Your task to perform on an android device: open chrome and create a bookmark for the current page Image 0: 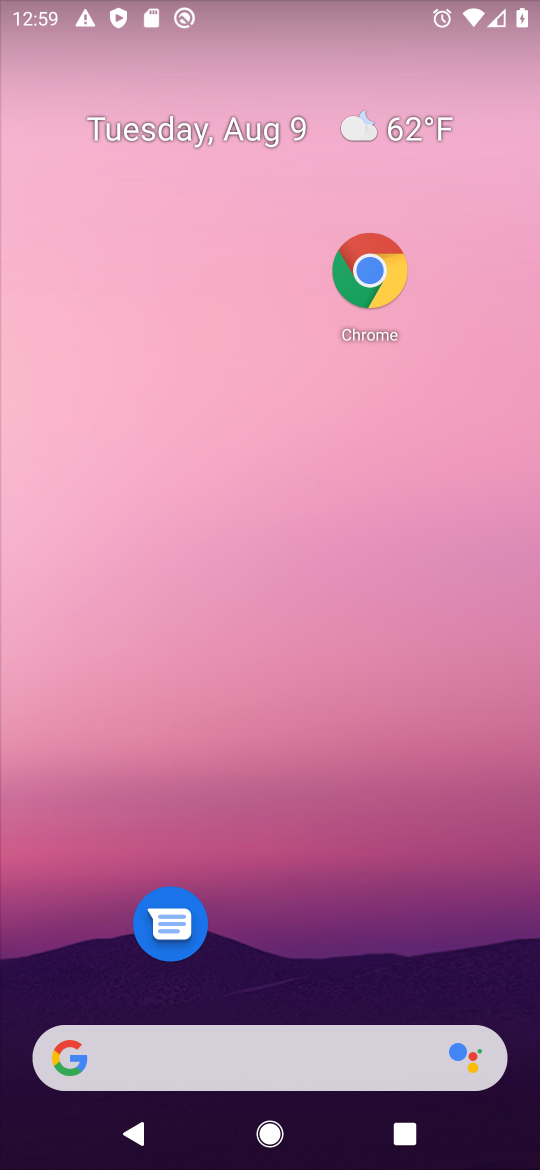
Step 0: click (327, 286)
Your task to perform on an android device: open chrome and create a bookmark for the current page Image 1: 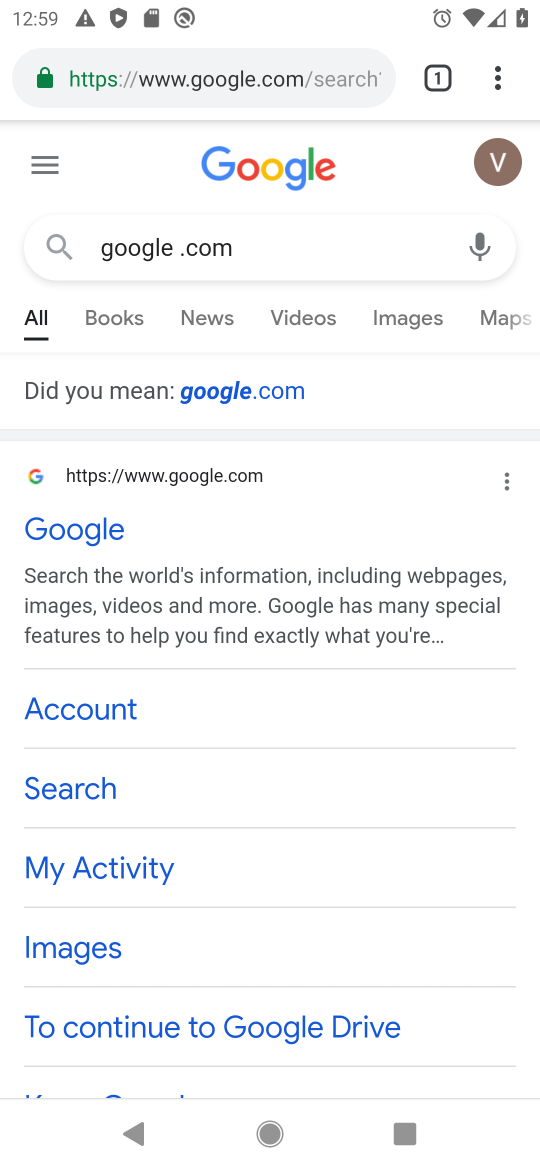
Step 1: click (502, 59)
Your task to perform on an android device: open chrome and create a bookmark for the current page Image 2: 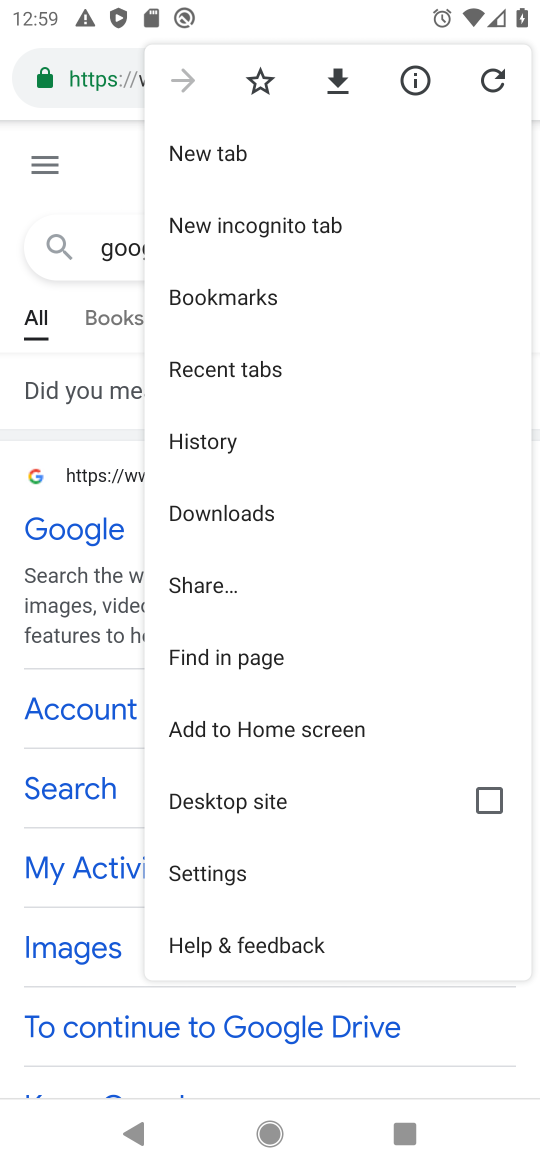
Step 2: click (266, 92)
Your task to perform on an android device: open chrome and create a bookmark for the current page Image 3: 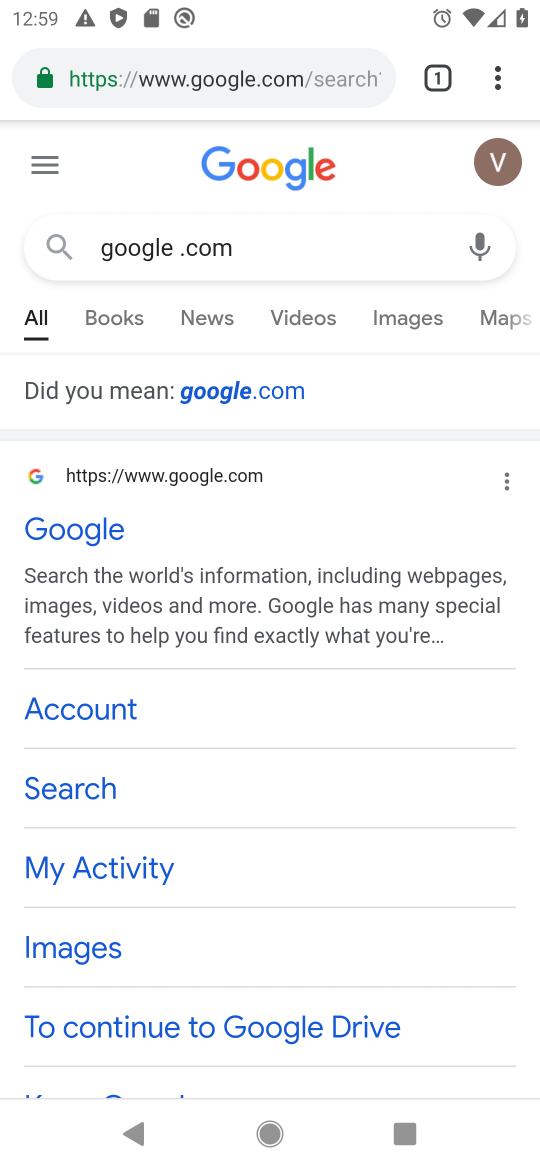
Step 3: task complete